Your task to perform on an android device: add a contact Image 0: 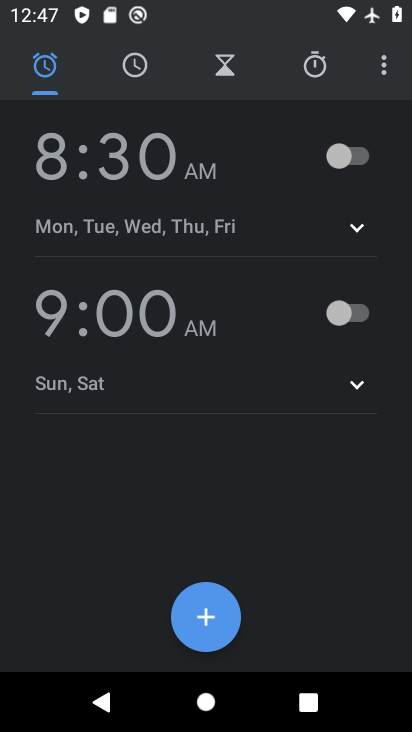
Step 0: press home button
Your task to perform on an android device: add a contact Image 1: 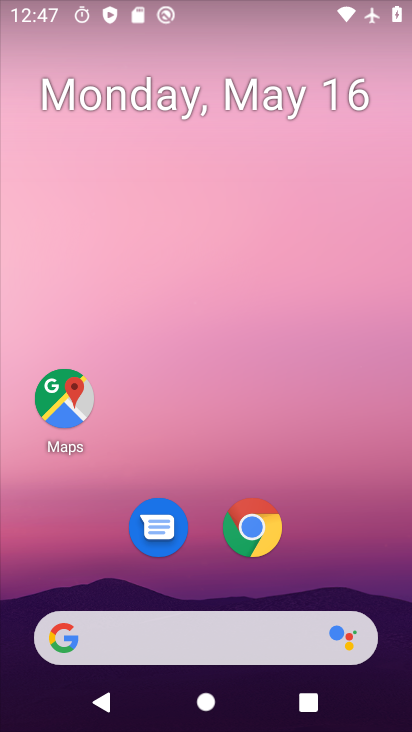
Step 1: drag from (140, 626) to (360, 9)
Your task to perform on an android device: add a contact Image 2: 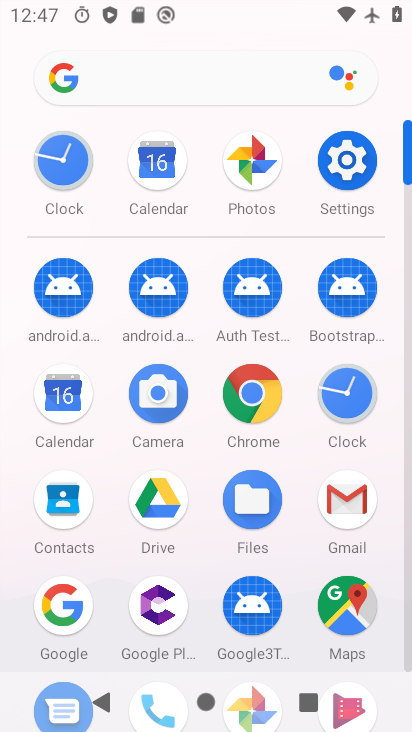
Step 2: click (57, 508)
Your task to perform on an android device: add a contact Image 3: 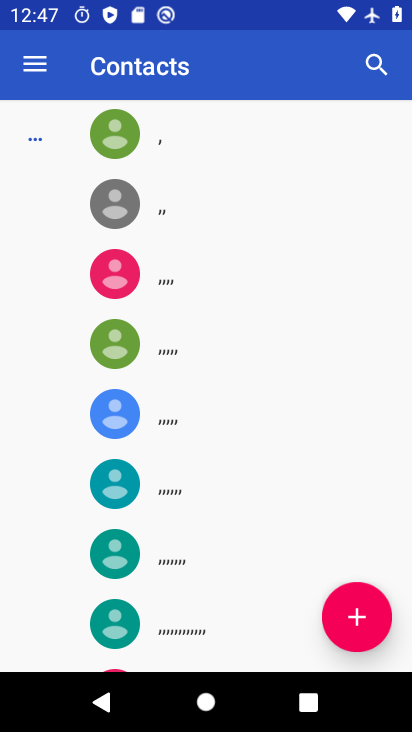
Step 3: click (371, 613)
Your task to perform on an android device: add a contact Image 4: 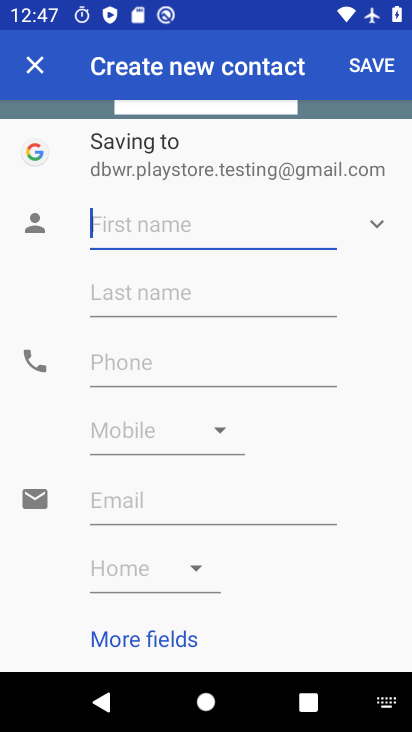
Step 4: click (153, 218)
Your task to perform on an android device: add a contact Image 5: 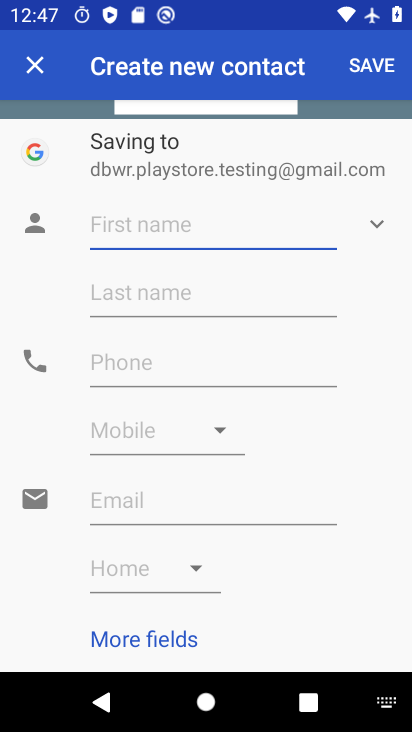
Step 5: type "byutttt"
Your task to perform on an android device: add a contact Image 6: 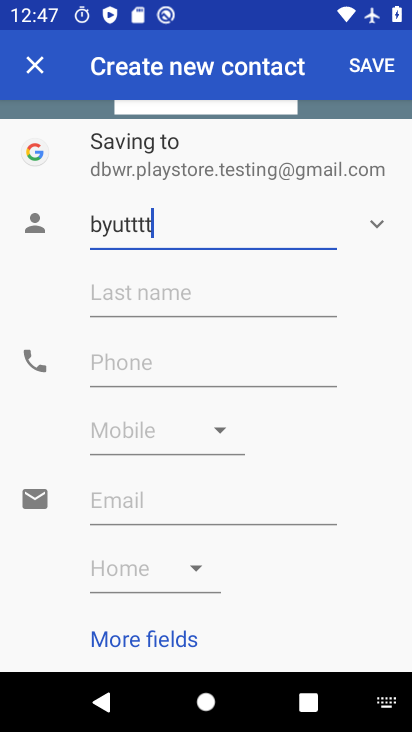
Step 6: click (136, 361)
Your task to perform on an android device: add a contact Image 7: 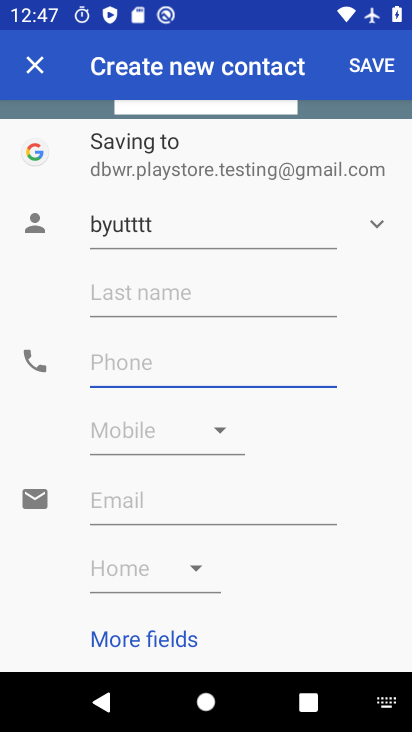
Step 7: type "9456333"
Your task to perform on an android device: add a contact Image 8: 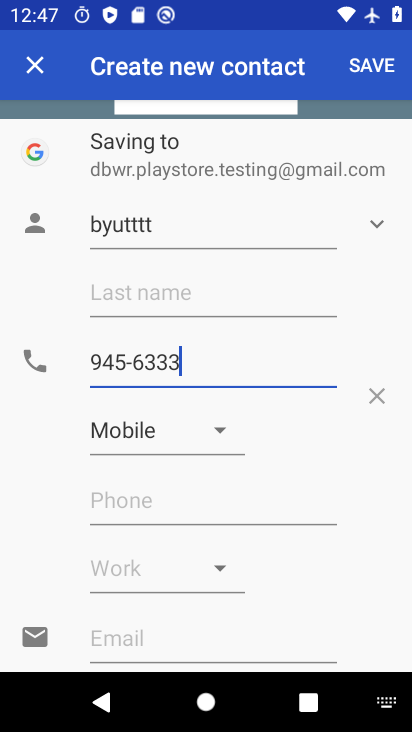
Step 8: click (364, 68)
Your task to perform on an android device: add a contact Image 9: 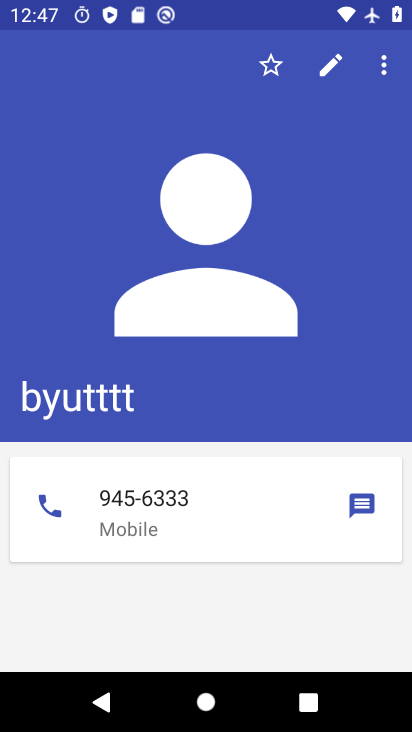
Step 9: task complete